Your task to perform on an android device: clear history in the chrome app Image 0: 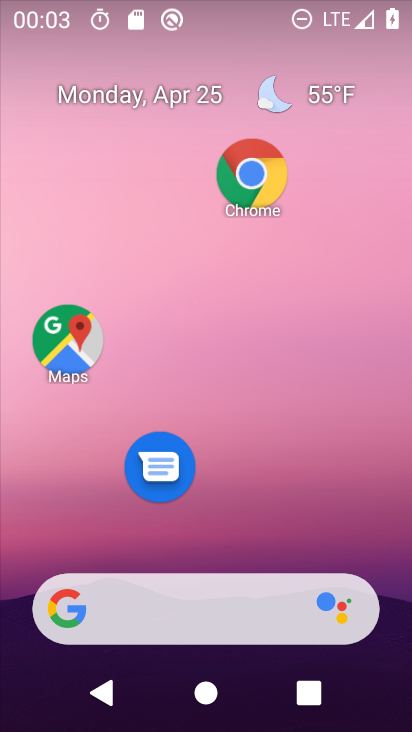
Step 0: drag from (201, 434) to (195, 58)
Your task to perform on an android device: clear history in the chrome app Image 1: 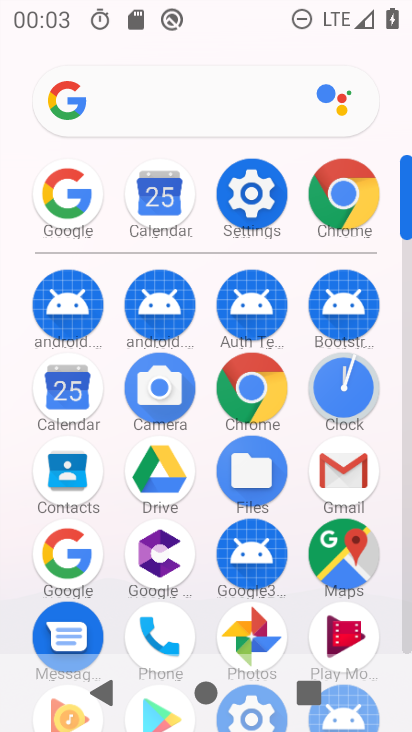
Step 1: click (339, 195)
Your task to perform on an android device: clear history in the chrome app Image 2: 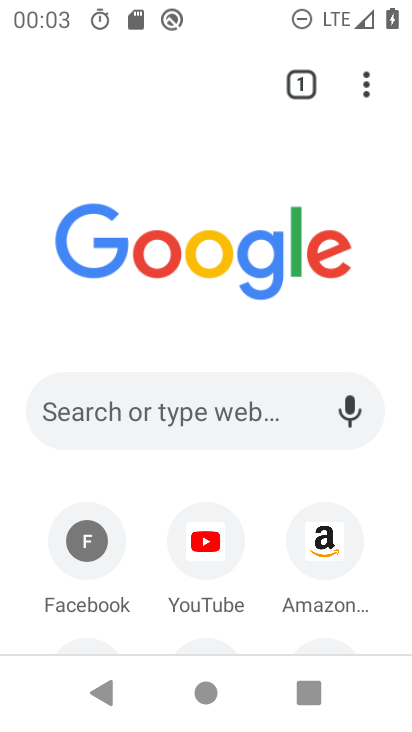
Step 2: click (361, 91)
Your task to perform on an android device: clear history in the chrome app Image 3: 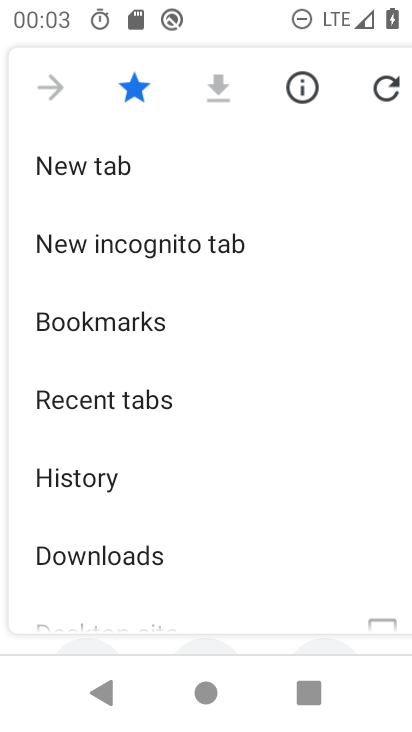
Step 3: drag from (296, 536) to (298, 224)
Your task to perform on an android device: clear history in the chrome app Image 4: 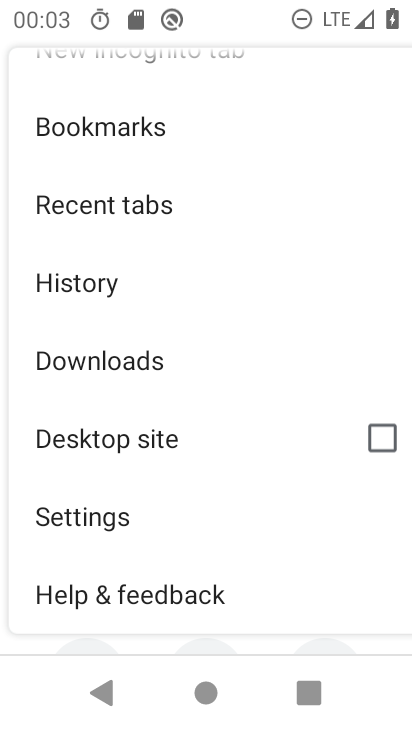
Step 4: drag from (230, 534) to (225, 443)
Your task to perform on an android device: clear history in the chrome app Image 5: 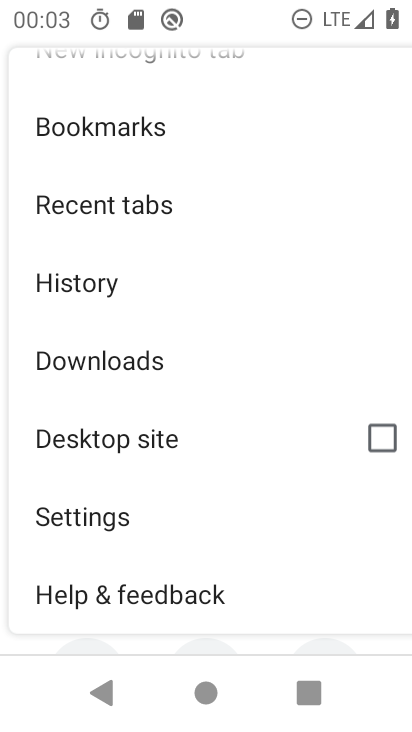
Step 5: click (83, 276)
Your task to perform on an android device: clear history in the chrome app Image 6: 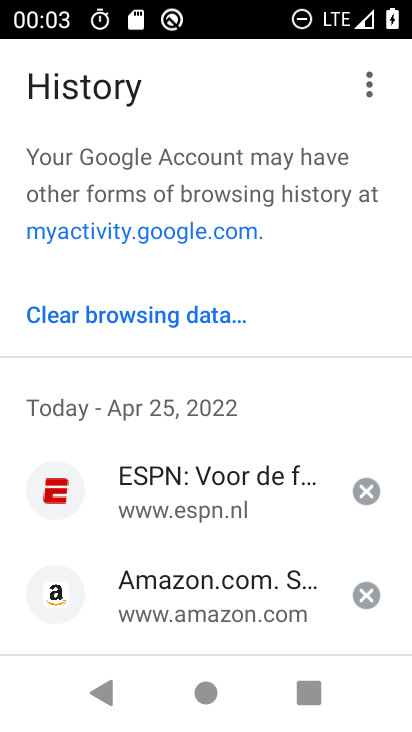
Step 6: click (145, 306)
Your task to perform on an android device: clear history in the chrome app Image 7: 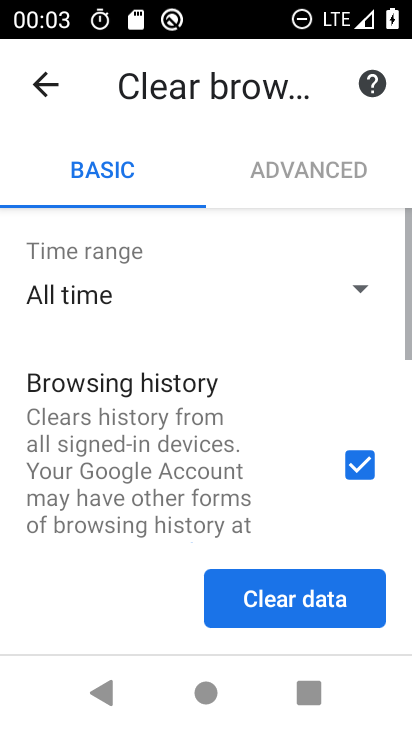
Step 7: drag from (278, 444) to (302, 105)
Your task to perform on an android device: clear history in the chrome app Image 8: 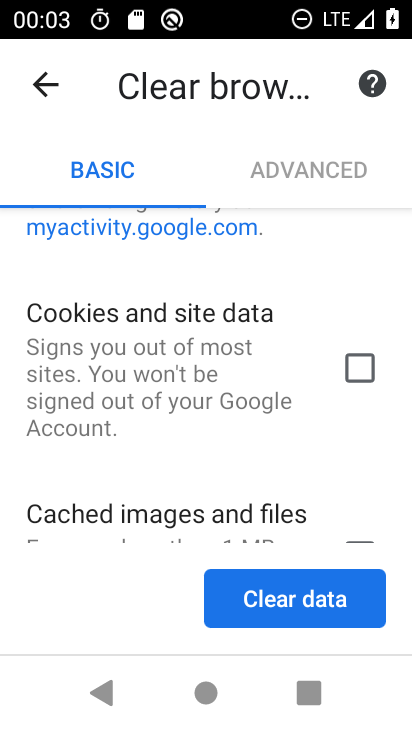
Step 8: click (276, 612)
Your task to perform on an android device: clear history in the chrome app Image 9: 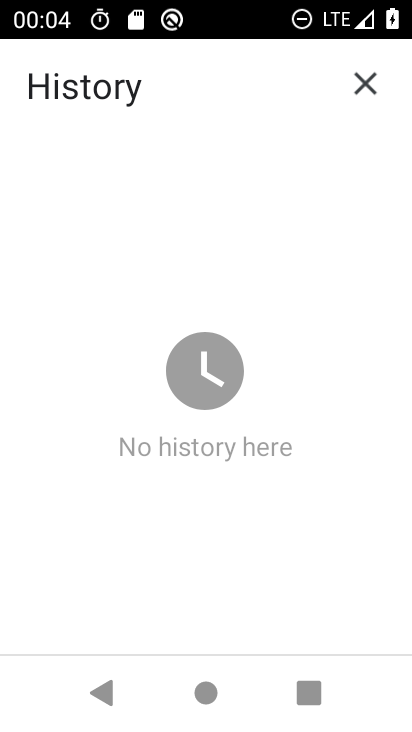
Step 9: task complete